Your task to perform on an android device: open a bookmark in the chrome app Image 0: 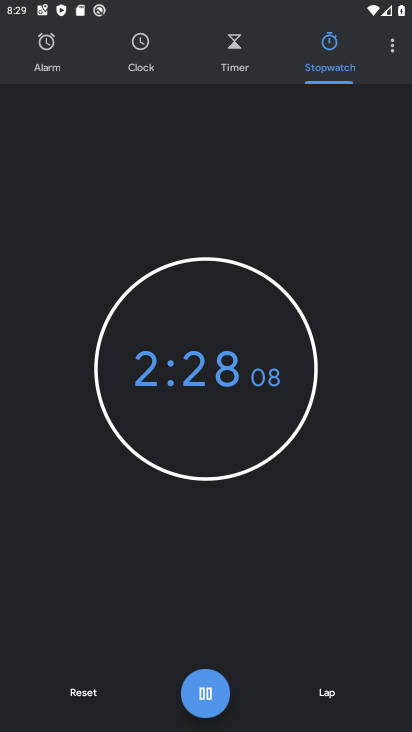
Step 0: drag from (383, 594) to (410, 209)
Your task to perform on an android device: open a bookmark in the chrome app Image 1: 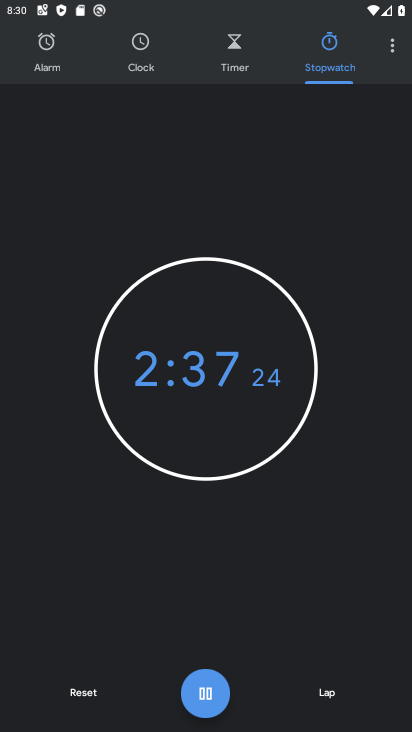
Step 1: drag from (261, 569) to (269, 313)
Your task to perform on an android device: open a bookmark in the chrome app Image 2: 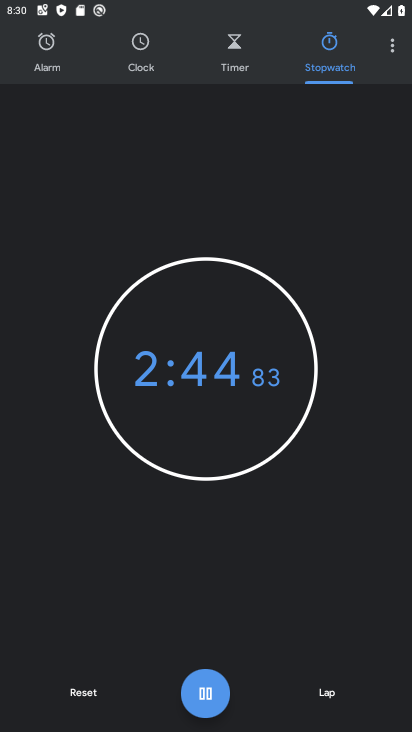
Step 2: press home button
Your task to perform on an android device: open a bookmark in the chrome app Image 3: 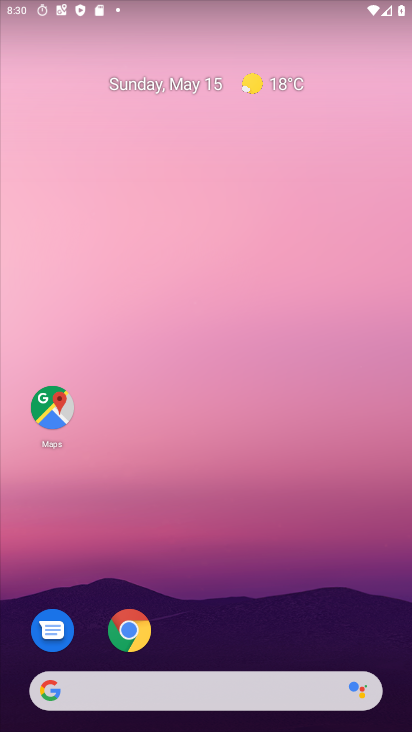
Step 3: drag from (188, 646) to (275, 230)
Your task to perform on an android device: open a bookmark in the chrome app Image 4: 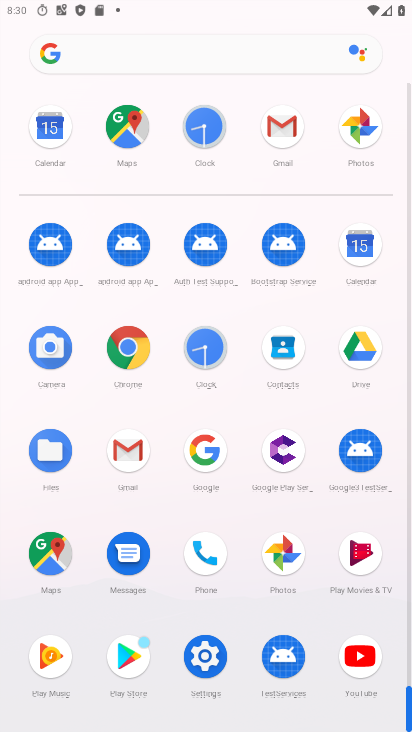
Step 4: click (131, 346)
Your task to perform on an android device: open a bookmark in the chrome app Image 5: 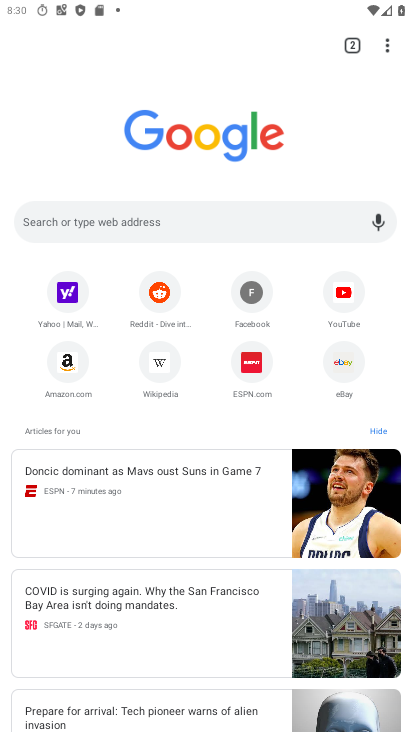
Step 5: drag from (173, 620) to (289, 662)
Your task to perform on an android device: open a bookmark in the chrome app Image 6: 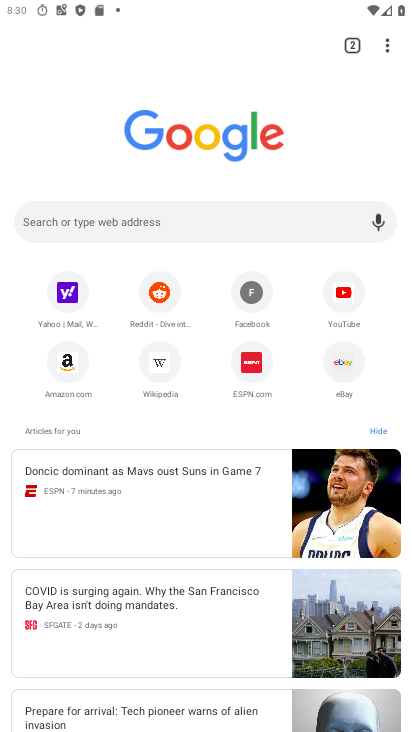
Step 6: click (387, 54)
Your task to perform on an android device: open a bookmark in the chrome app Image 7: 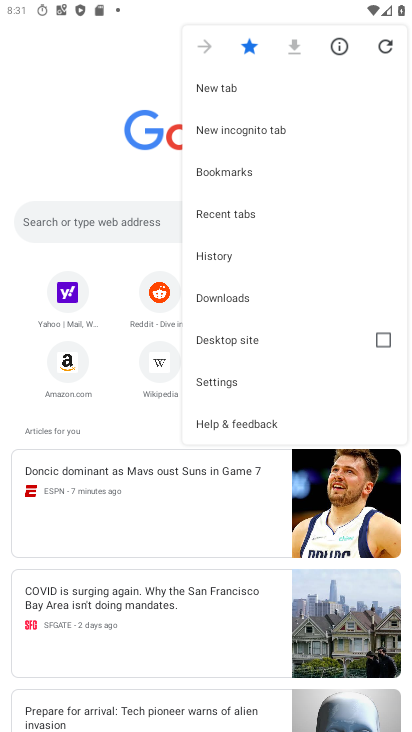
Step 7: click (239, 184)
Your task to perform on an android device: open a bookmark in the chrome app Image 8: 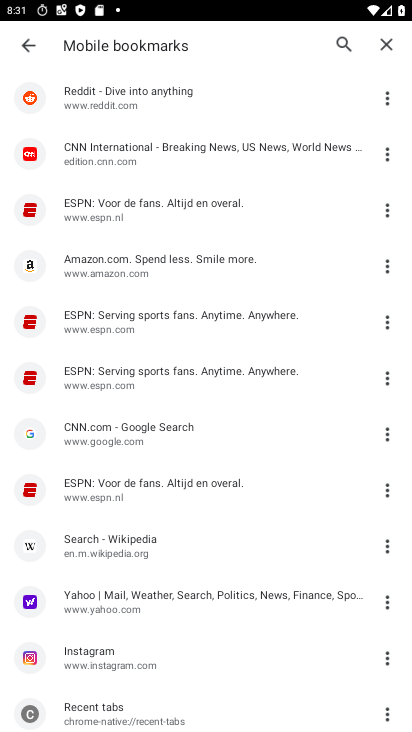
Step 8: drag from (288, 439) to (316, 206)
Your task to perform on an android device: open a bookmark in the chrome app Image 9: 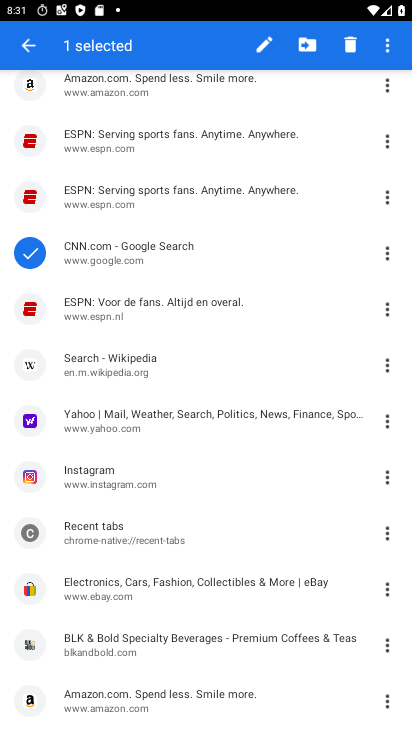
Step 9: click (280, 314)
Your task to perform on an android device: open a bookmark in the chrome app Image 10: 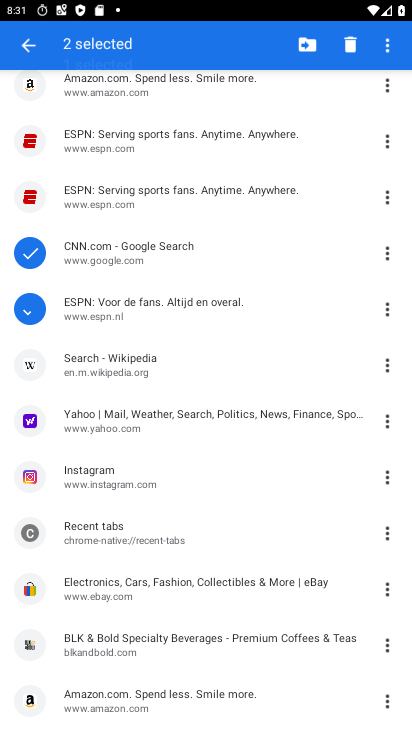
Step 10: drag from (258, 263) to (283, 458)
Your task to perform on an android device: open a bookmark in the chrome app Image 11: 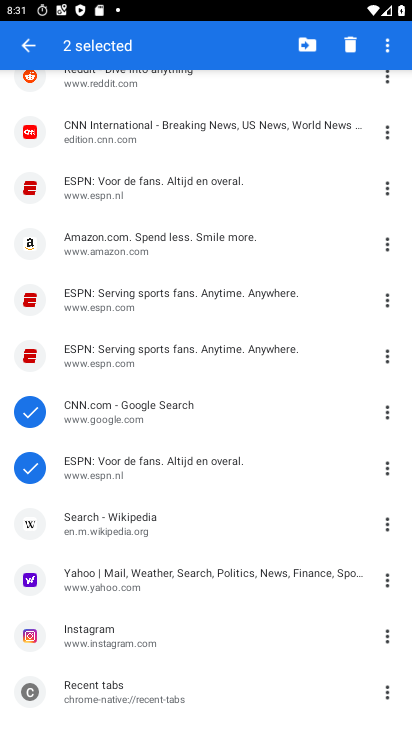
Step 11: click (22, 44)
Your task to perform on an android device: open a bookmark in the chrome app Image 12: 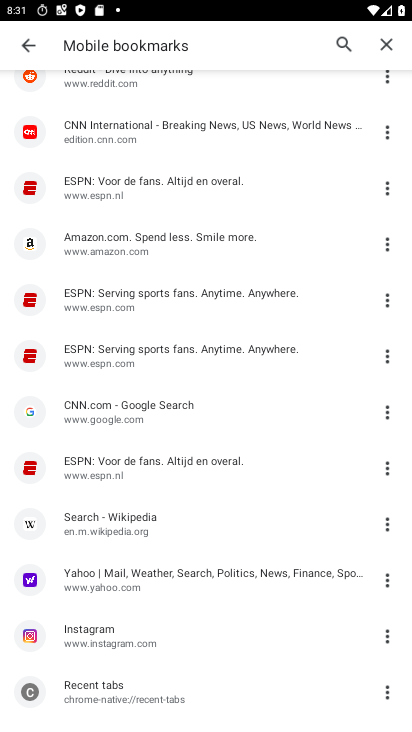
Step 12: task complete